Your task to perform on an android device: Turn off the flashlight Image 0: 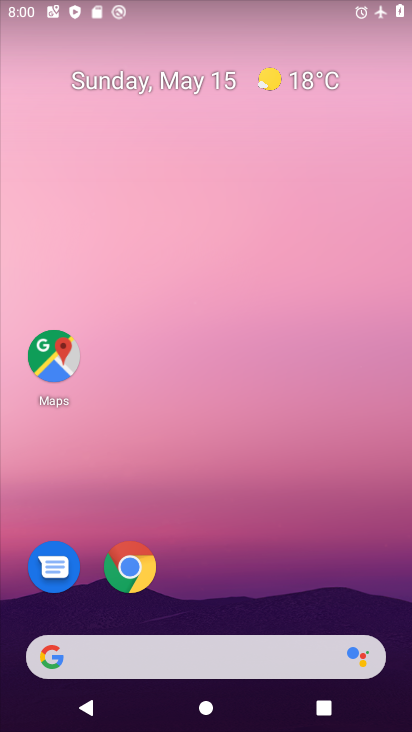
Step 0: drag from (200, 45) to (236, 534)
Your task to perform on an android device: Turn off the flashlight Image 1: 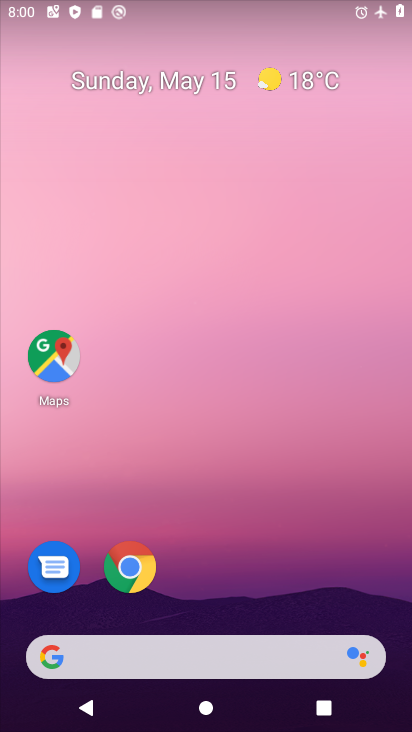
Step 1: task complete